Your task to perform on an android device: Open Google Maps and go to "Timeline" Image 0: 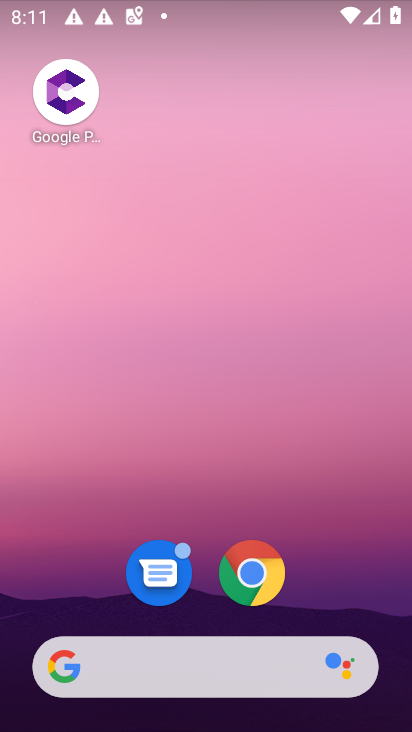
Step 0: drag from (183, 657) to (206, 62)
Your task to perform on an android device: Open Google Maps and go to "Timeline" Image 1: 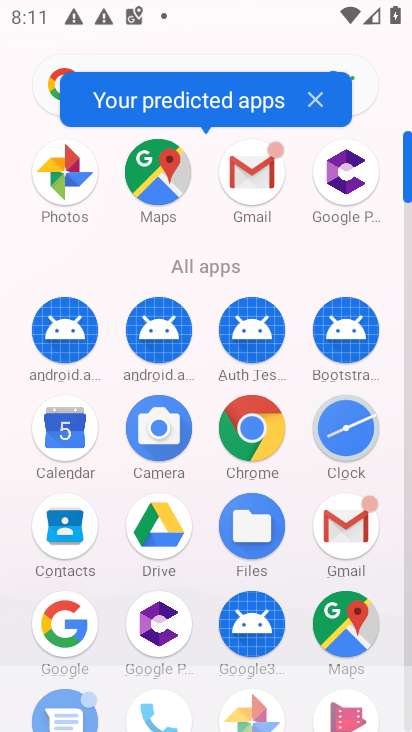
Step 1: click (156, 172)
Your task to perform on an android device: Open Google Maps and go to "Timeline" Image 2: 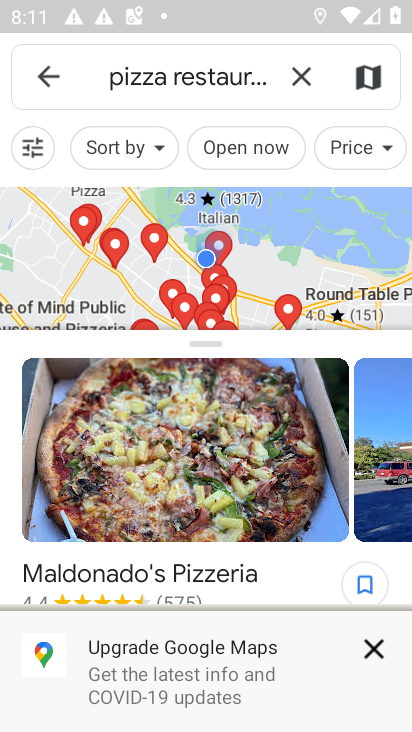
Step 2: click (299, 80)
Your task to perform on an android device: Open Google Maps and go to "Timeline" Image 3: 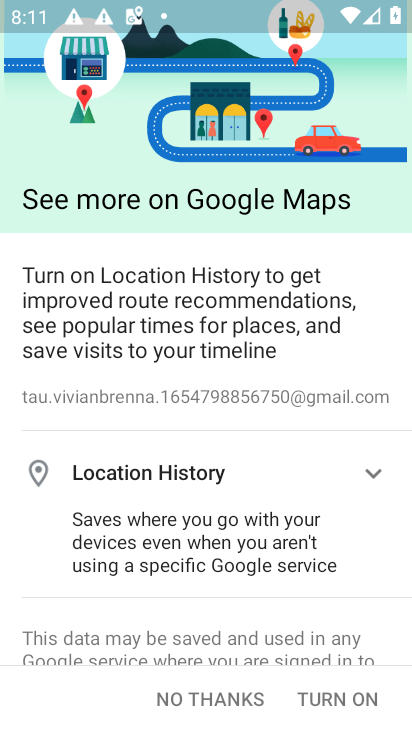
Step 3: click (258, 700)
Your task to perform on an android device: Open Google Maps and go to "Timeline" Image 4: 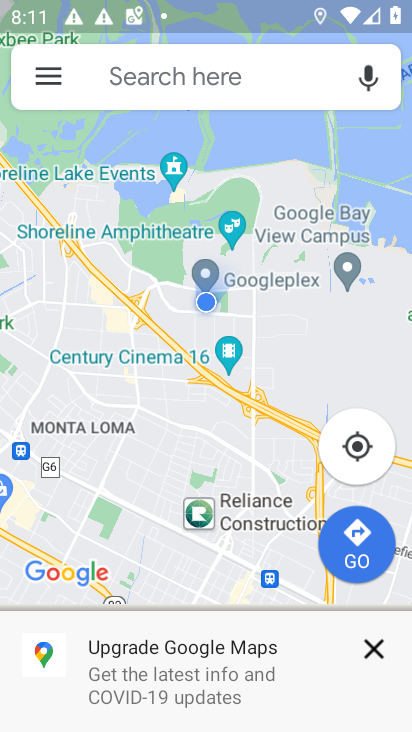
Step 4: click (48, 81)
Your task to perform on an android device: Open Google Maps and go to "Timeline" Image 5: 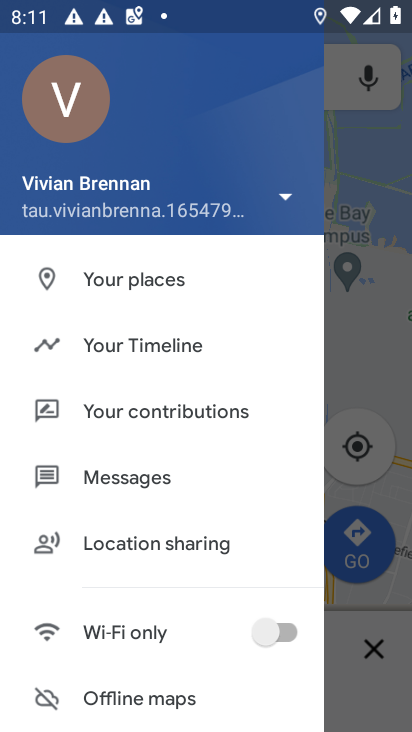
Step 5: click (124, 349)
Your task to perform on an android device: Open Google Maps and go to "Timeline" Image 6: 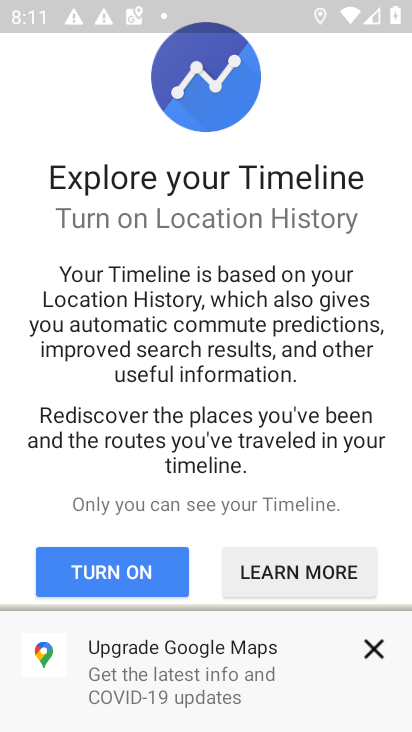
Step 6: click (376, 647)
Your task to perform on an android device: Open Google Maps and go to "Timeline" Image 7: 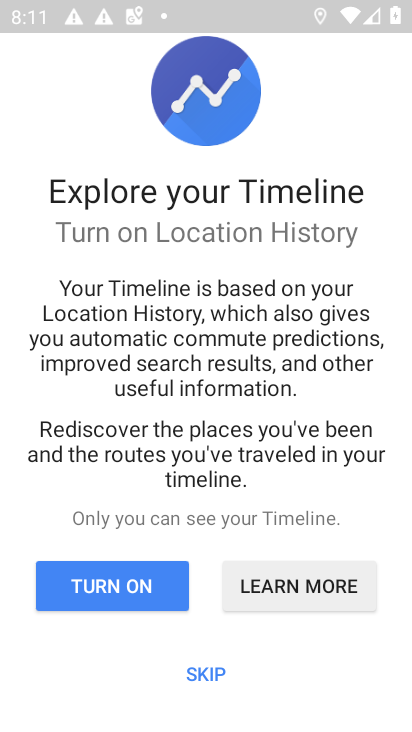
Step 7: click (198, 672)
Your task to perform on an android device: Open Google Maps and go to "Timeline" Image 8: 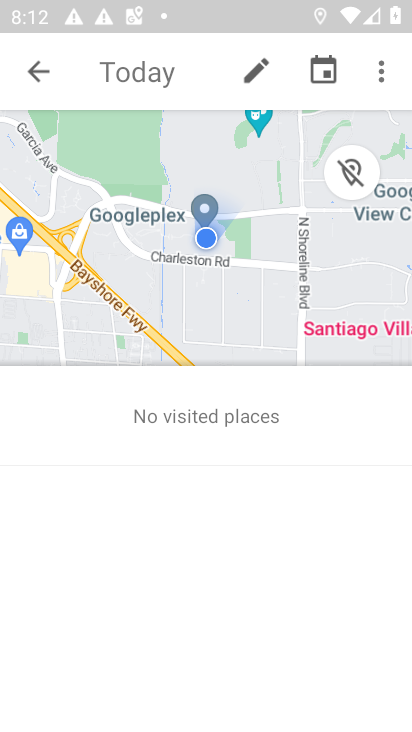
Step 8: task complete